Your task to perform on an android device: Open the phone app and click the voicemail tab. Image 0: 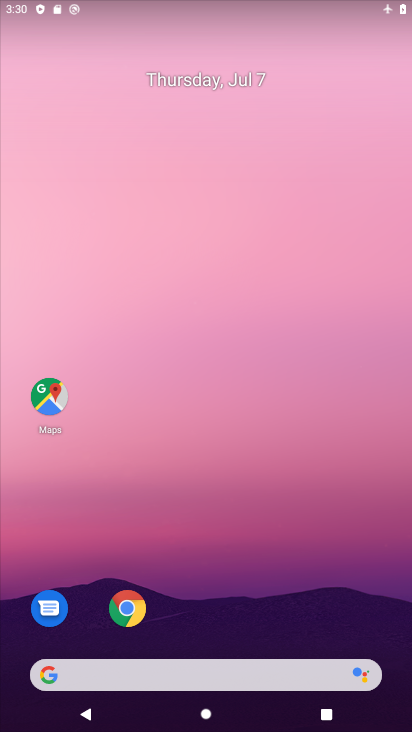
Step 0: drag from (250, 619) to (171, 43)
Your task to perform on an android device: Open the phone app and click the voicemail tab. Image 1: 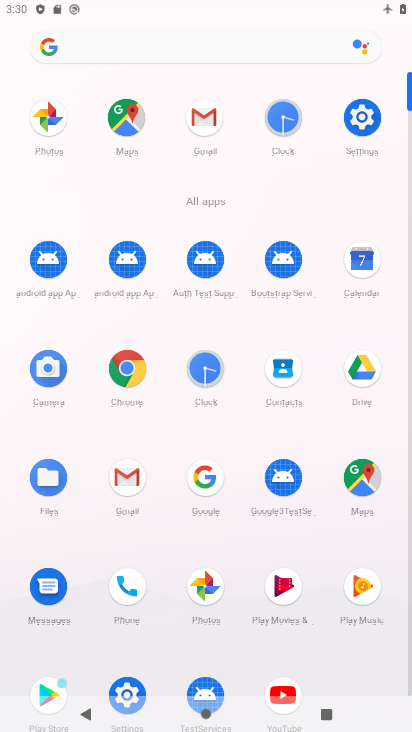
Step 1: click (134, 588)
Your task to perform on an android device: Open the phone app and click the voicemail tab. Image 2: 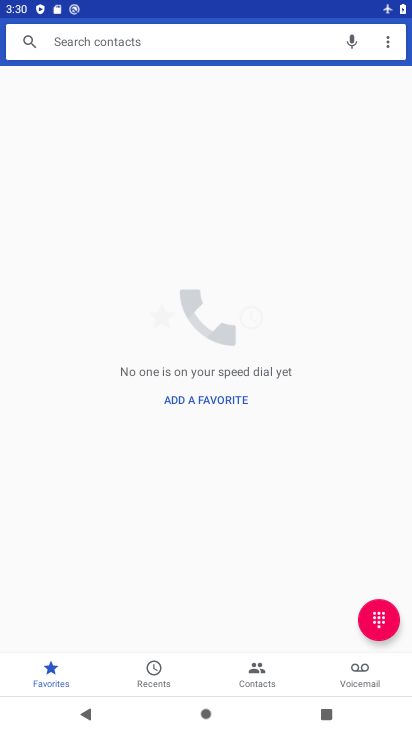
Step 2: click (366, 677)
Your task to perform on an android device: Open the phone app and click the voicemail tab. Image 3: 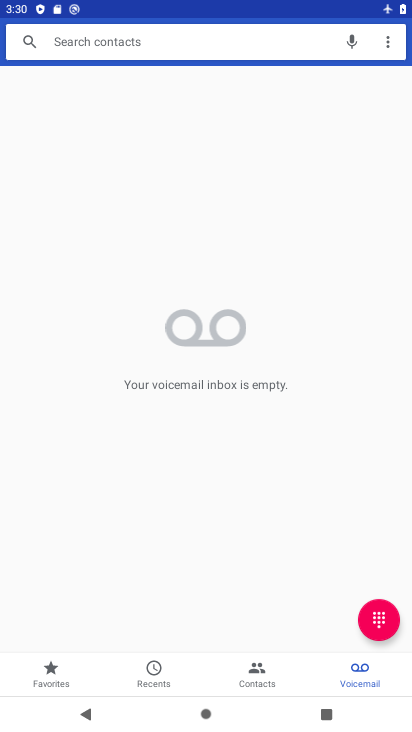
Step 3: task complete